Your task to perform on an android device: Open a new incognito window in the chrome app Image 0: 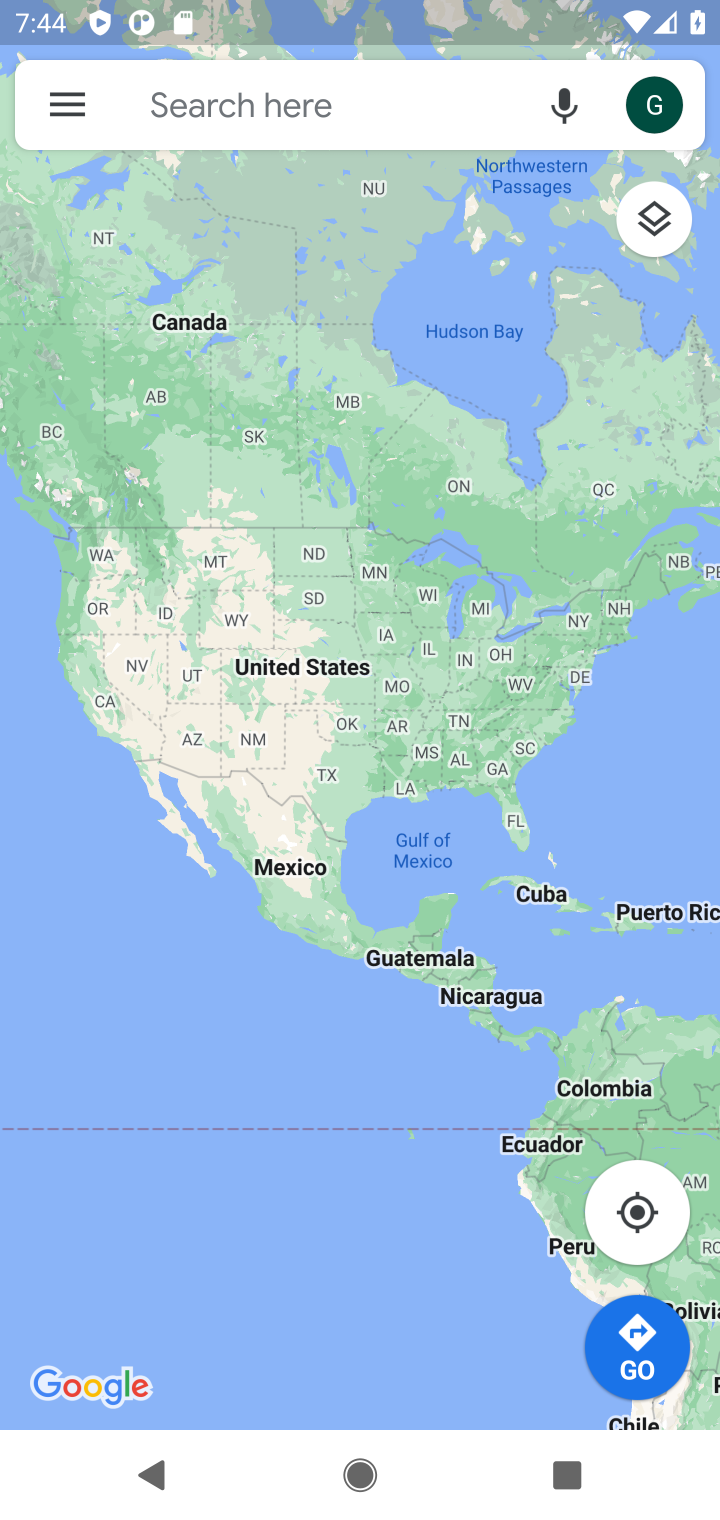
Step 0: click (353, 1478)
Your task to perform on an android device: Open a new incognito window in the chrome app Image 1: 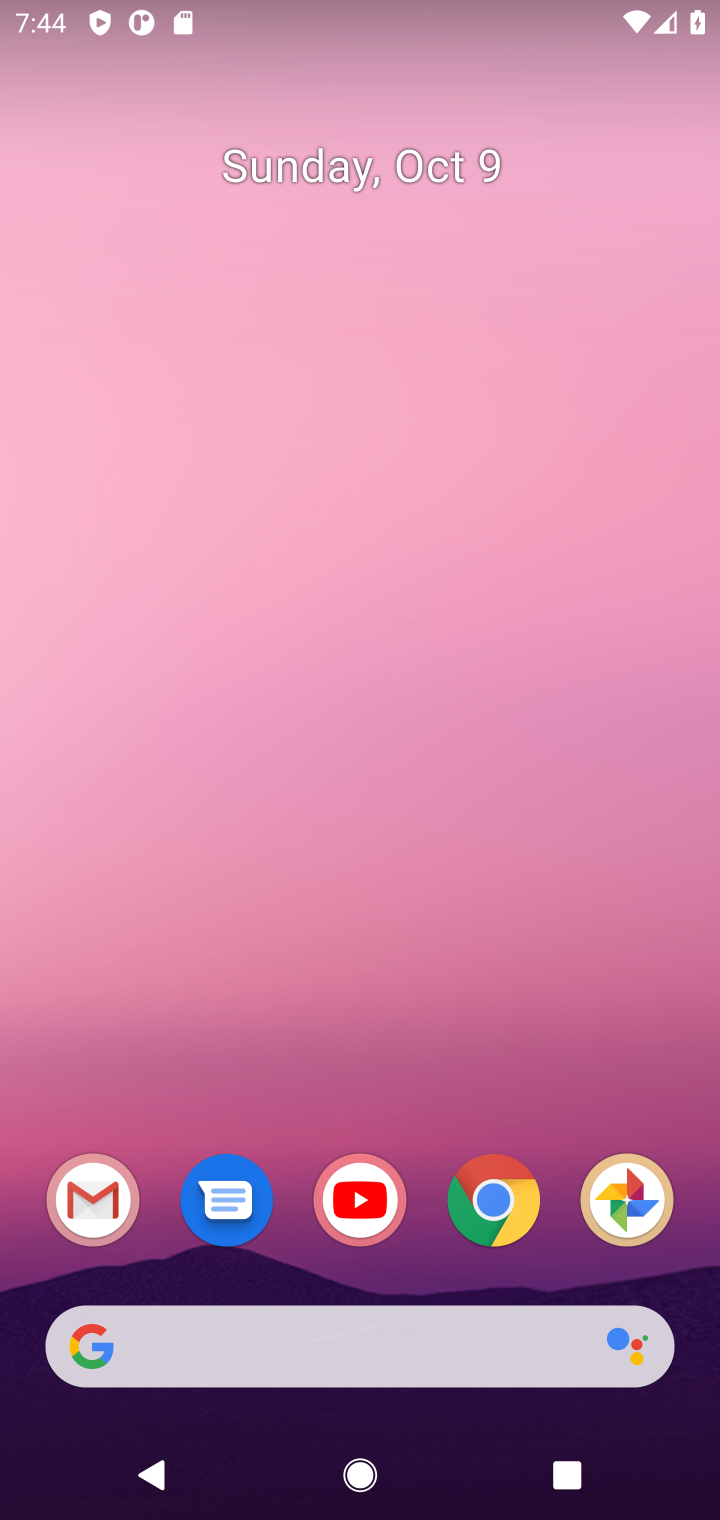
Step 1: click (503, 1222)
Your task to perform on an android device: Open a new incognito window in the chrome app Image 2: 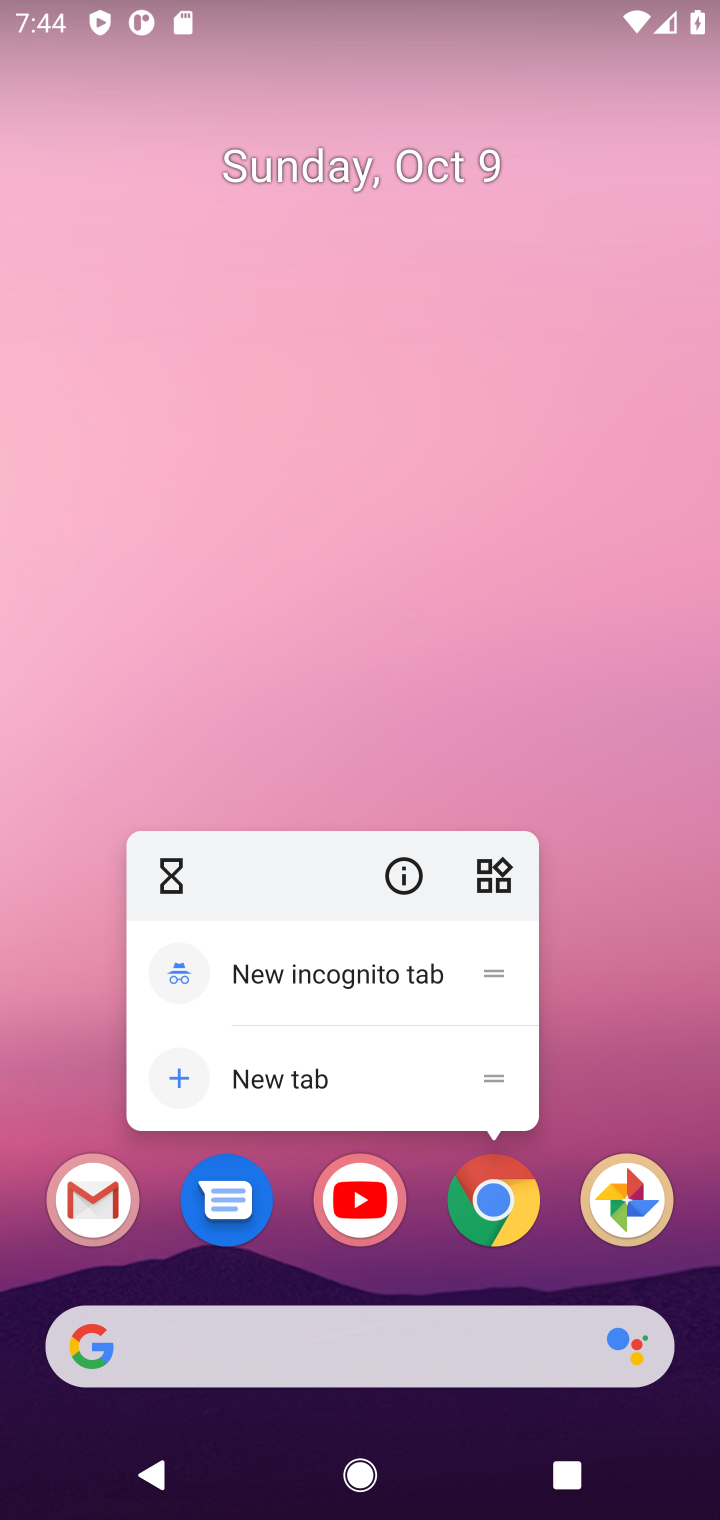
Step 2: click (503, 1222)
Your task to perform on an android device: Open a new incognito window in the chrome app Image 3: 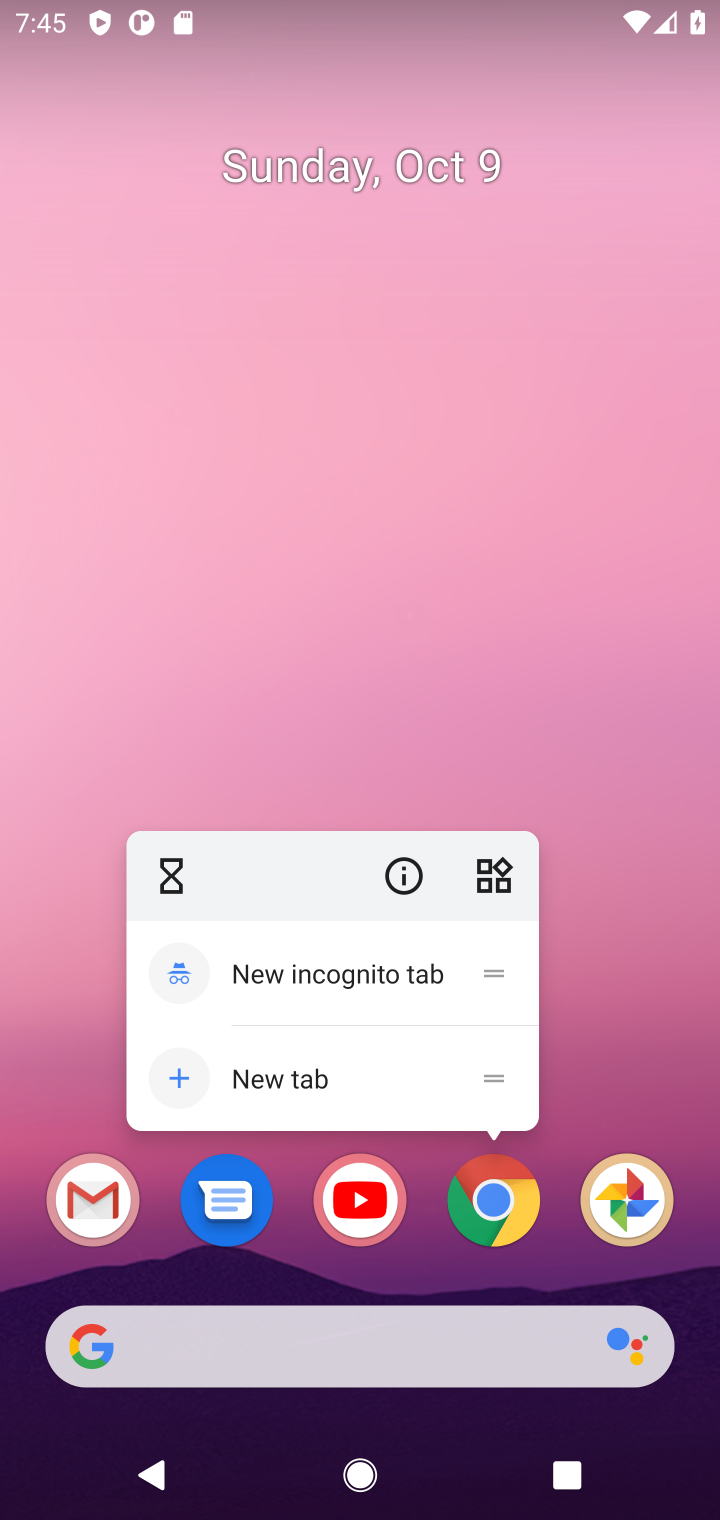
Step 3: click (332, 973)
Your task to perform on an android device: Open a new incognito window in the chrome app Image 4: 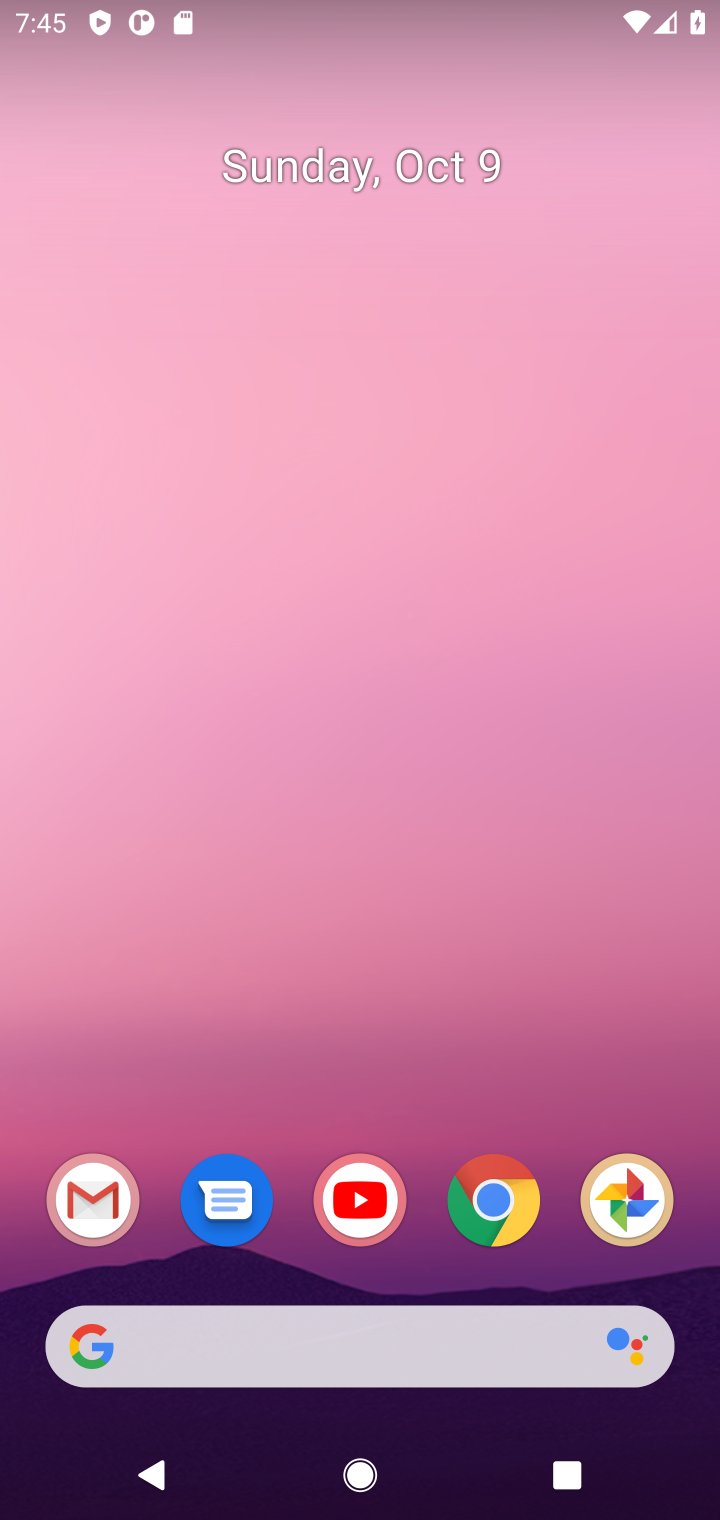
Step 4: click (512, 1200)
Your task to perform on an android device: Open a new incognito window in the chrome app Image 5: 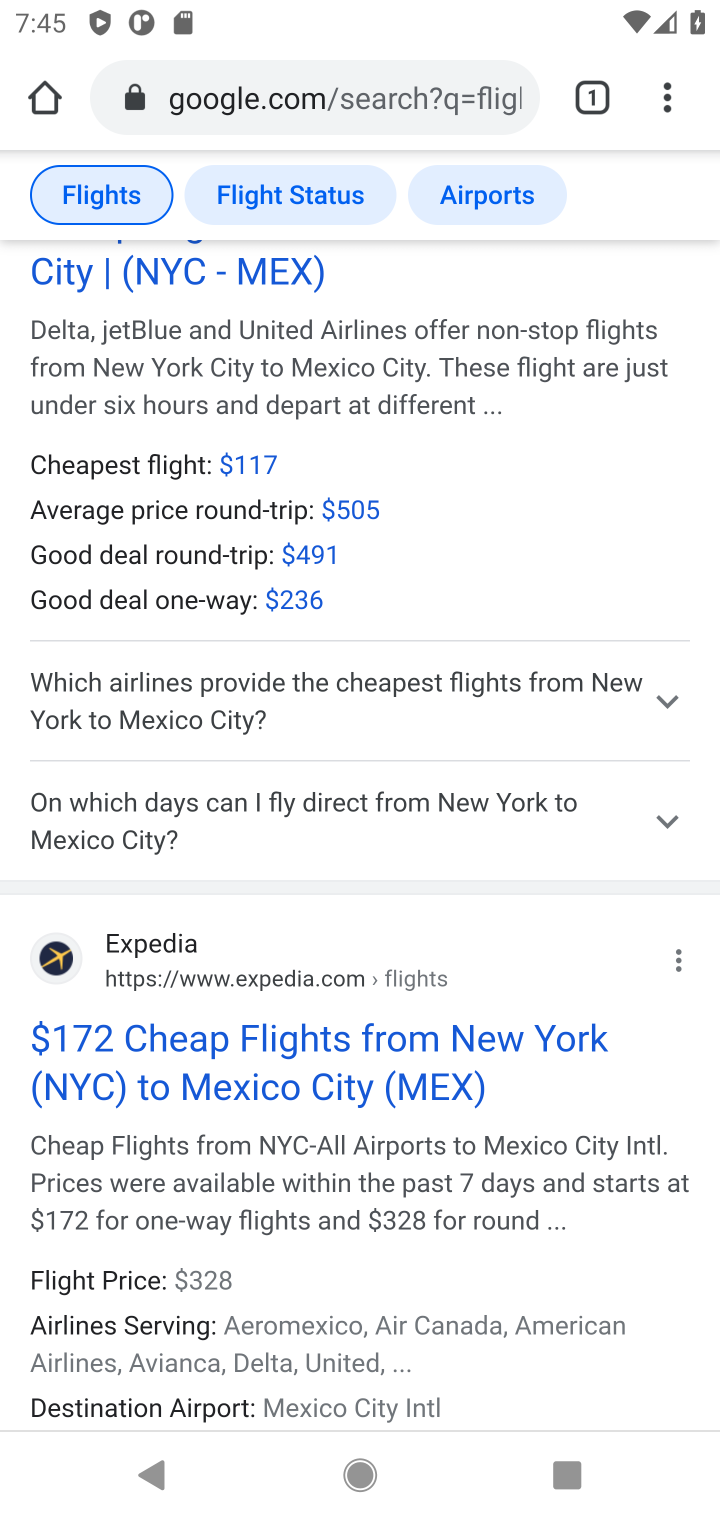
Step 5: click (663, 103)
Your task to perform on an android device: Open a new incognito window in the chrome app Image 6: 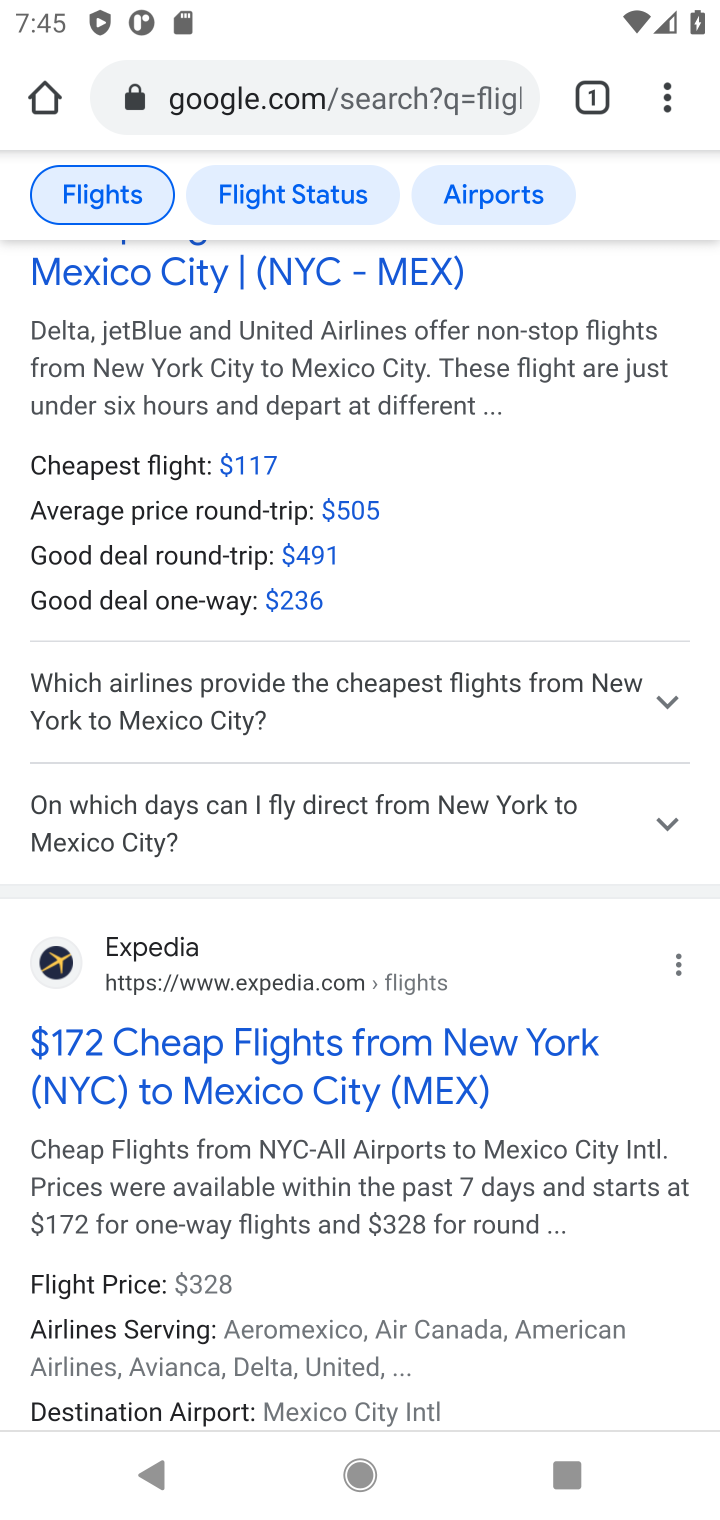
Step 6: click (663, 103)
Your task to perform on an android device: Open a new incognito window in the chrome app Image 7: 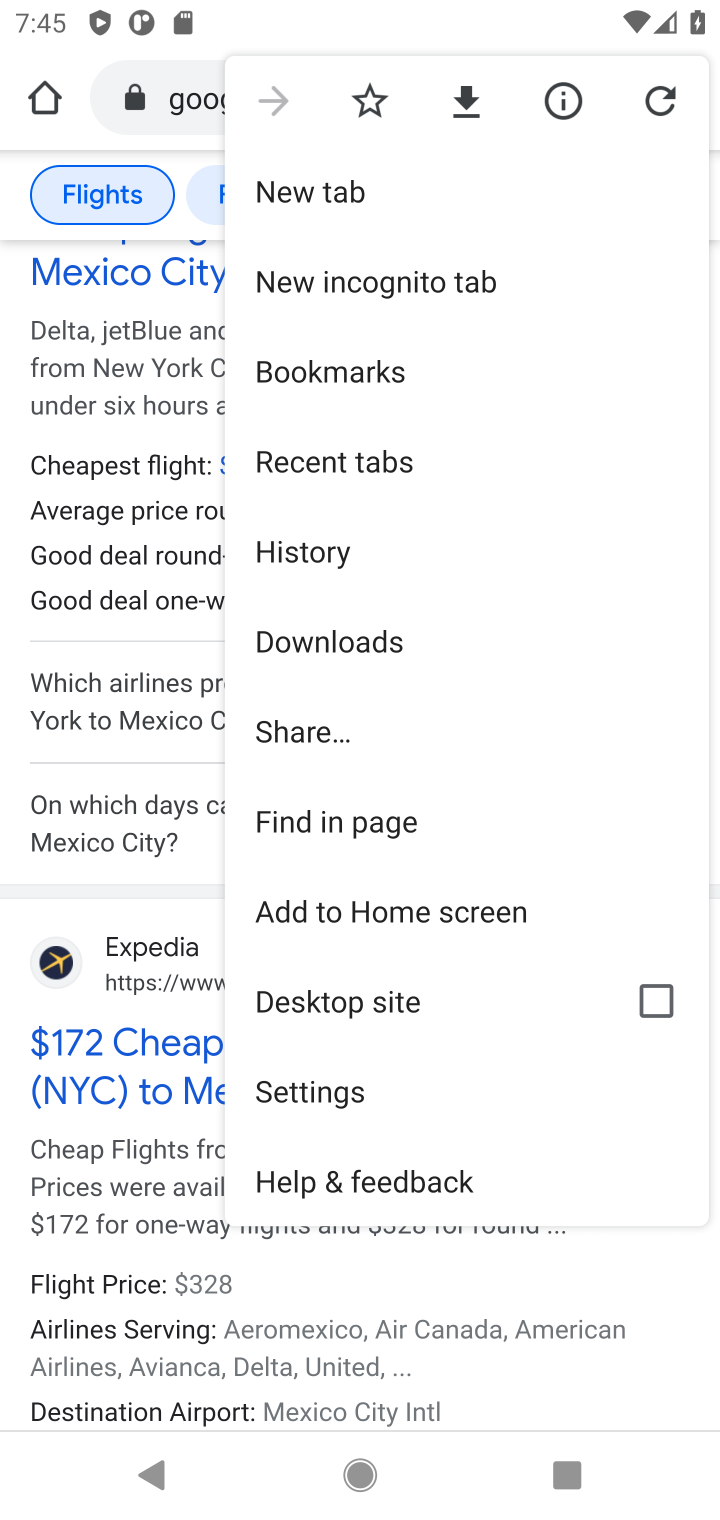
Step 7: click (436, 292)
Your task to perform on an android device: Open a new incognito window in the chrome app Image 8: 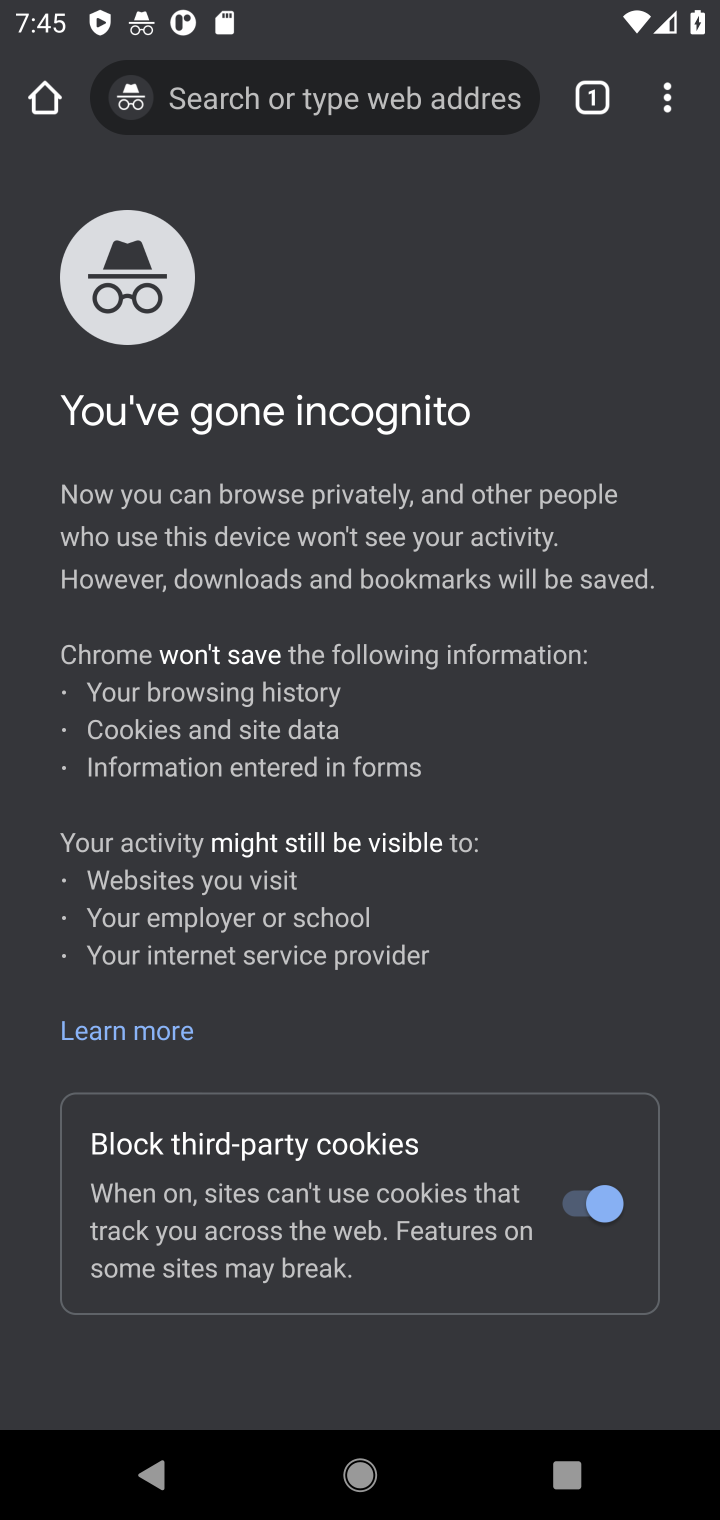
Step 8: task complete